Your task to perform on an android device: Go to network settings Image 0: 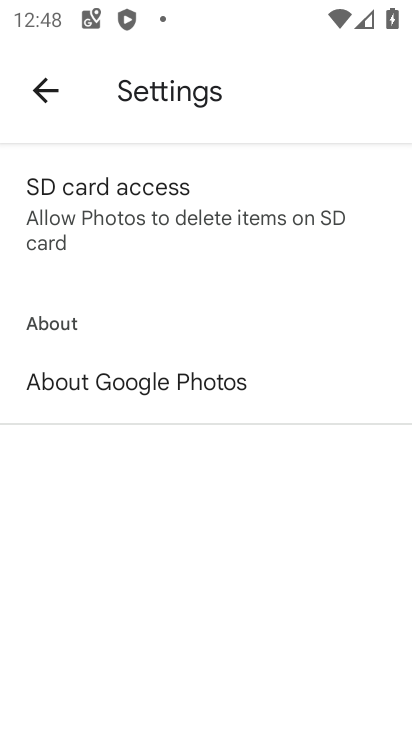
Step 0: press home button
Your task to perform on an android device: Go to network settings Image 1: 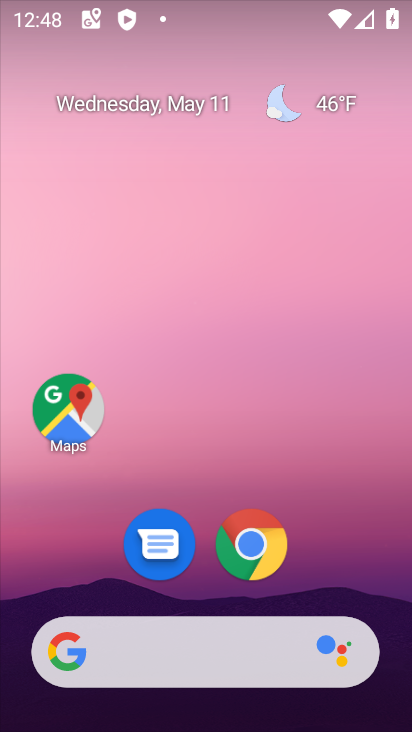
Step 1: drag from (400, 638) to (288, 82)
Your task to perform on an android device: Go to network settings Image 2: 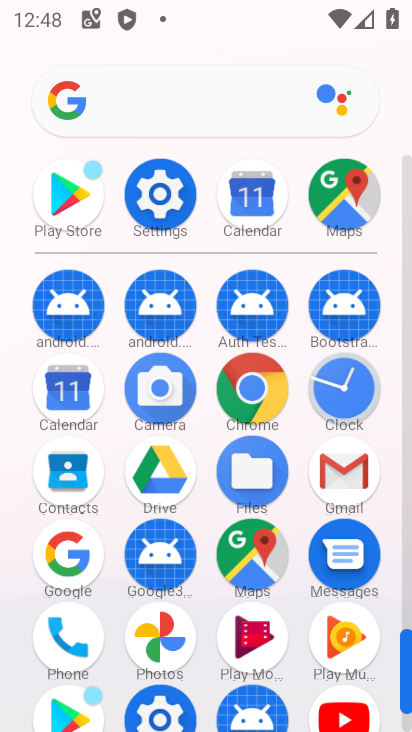
Step 2: click (406, 618)
Your task to perform on an android device: Go to network settings Image 3: 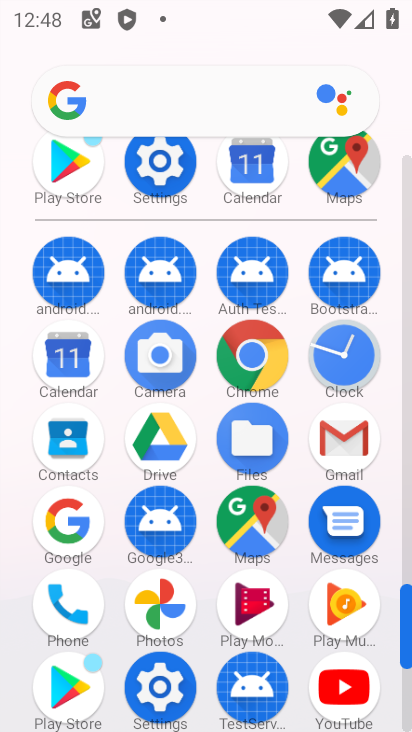
Step 3: click (161, 685)
Your task to perform on an android device: Go to network settings Image 4: 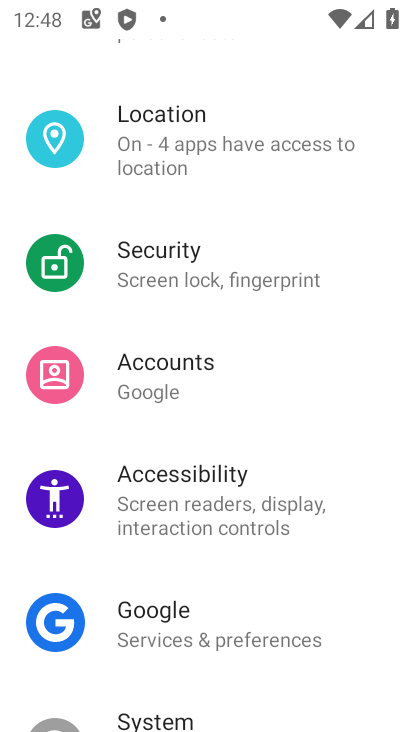
Step 4: drag from (352, 201) to (334, 459)
Your task to perform on an android device: Go to network settings Image 5: 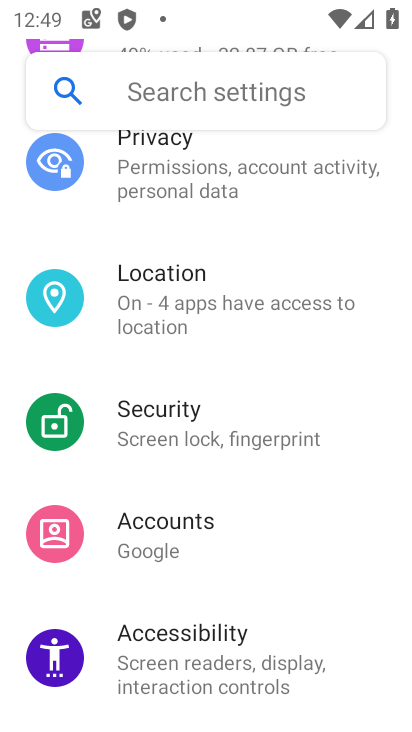
Step 5: drag from (385, 190) to (331, 455)
Your task to perform on an android device: Go to network settings Image 6: 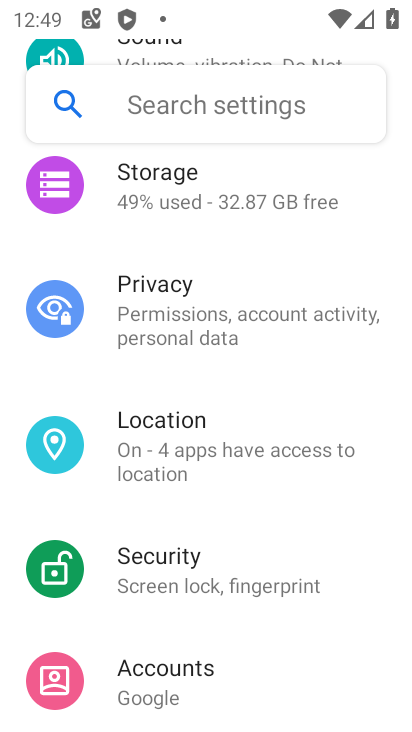
Step 6: drag from (365, 212) to (356, 477)
Your task to perform on an android device: Go to network settings Image 7: 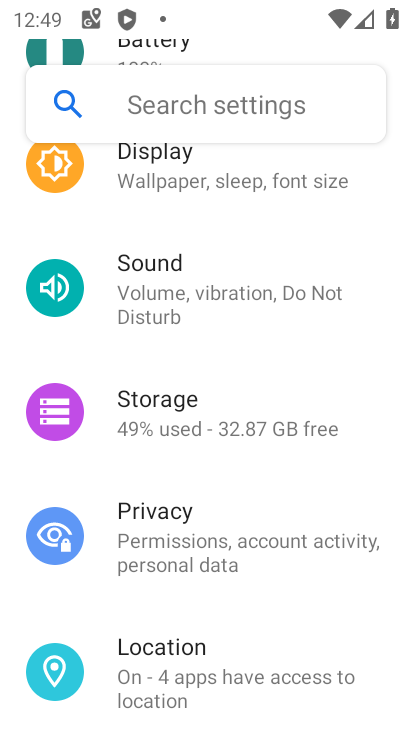
Step 7: drag from (372, 181) to (354, 478)
Your task to perform on an android device: Go to network settings Image 8: 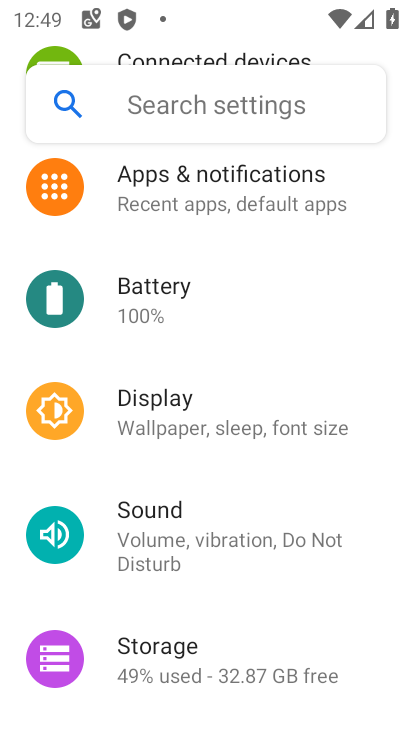
Step 8: drag from (352, 171) to (361, 445)
Your task to perform on an android device: Go to network settings Image 9: 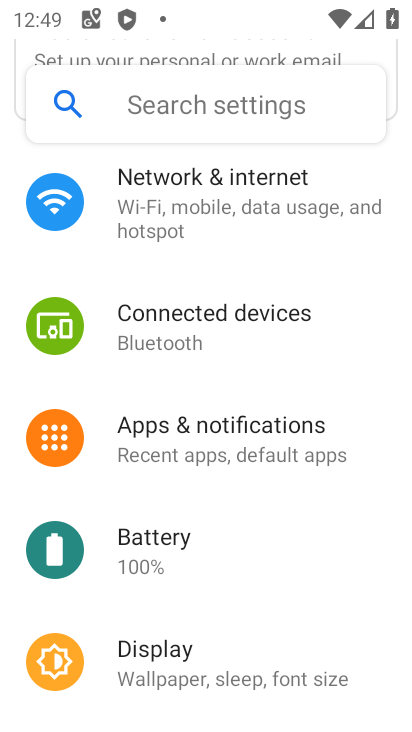
Step 9: click (163, 205)
Your task to perform on an android device: Go to network settings Image 10: 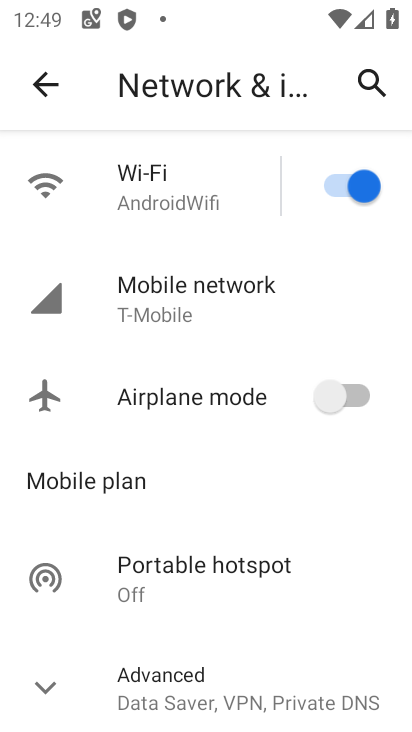
Step 10: click (143, 298)
Your task to perform on an android device: Go to network settings Image 11: 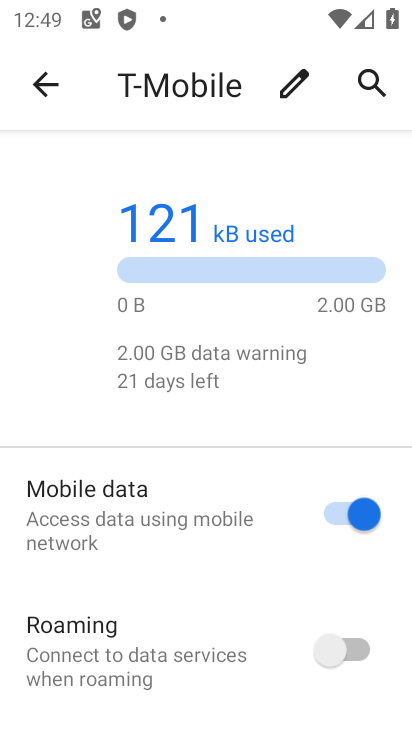
Step 11: drag from (266, 586) to (312, 284)
Your task to perform on an android device: Go to network settings Image 12: 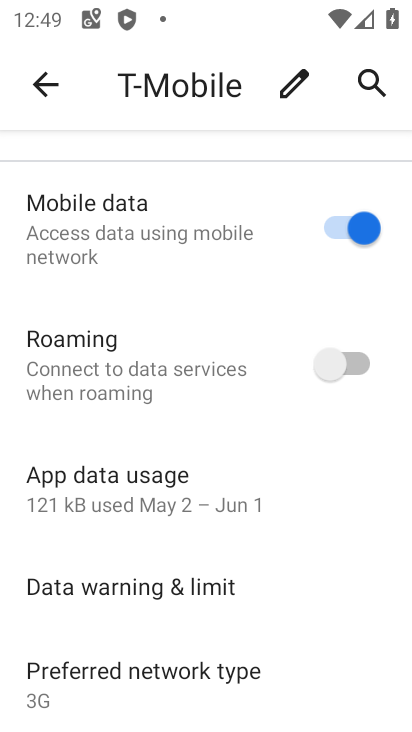
Step 12: drag from (258, 573) to (288, 200)
Your task to perform on an android device: Go to network settings Image 13: 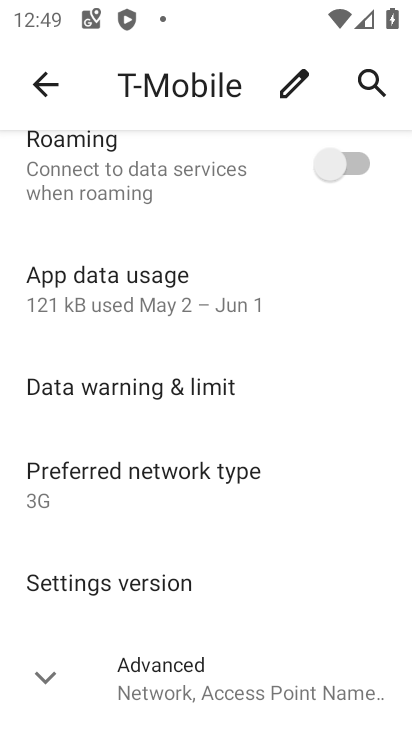
Step 13: click (42, 672)
Your task to perform on an android device: Go to network settings Image 14: 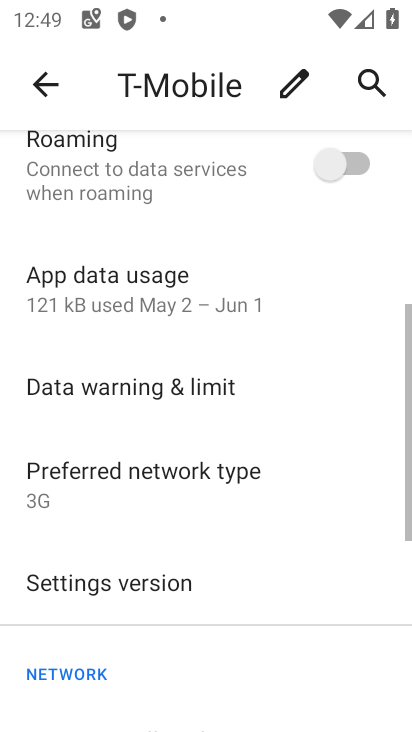
Step 14: task complete